Your task to perform on an android device: turn on javascript in the chrome app Image 0: 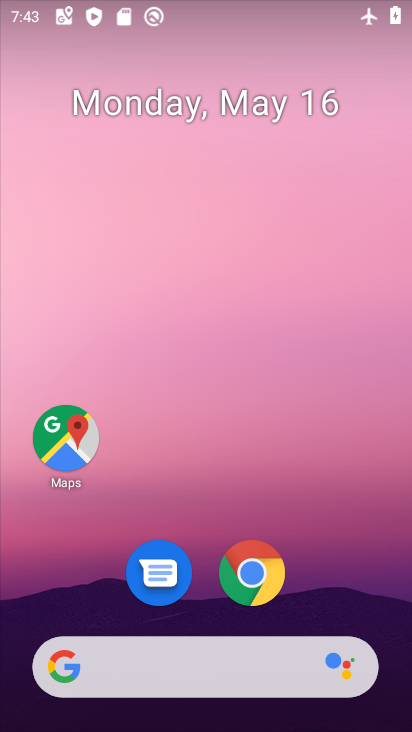
Step 0: click (272, 569)
Your task to perform on an android device: turn on javascript in the chrome app Image 1: 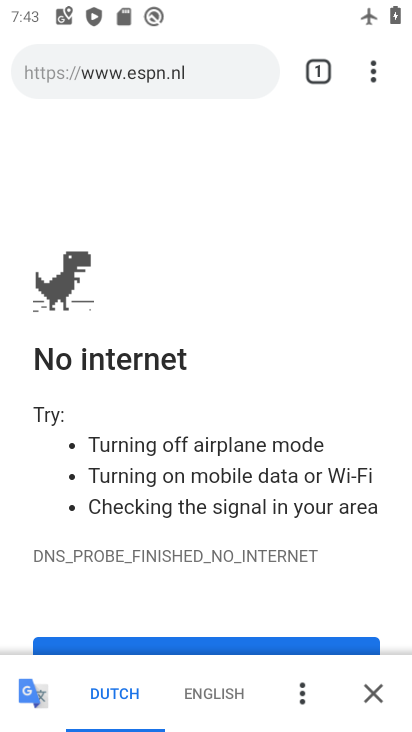
Step 1: drag from (296, 569) to (299, 1)
Your task to perform on an android device: turn on javascript in the chrome app Image 2: 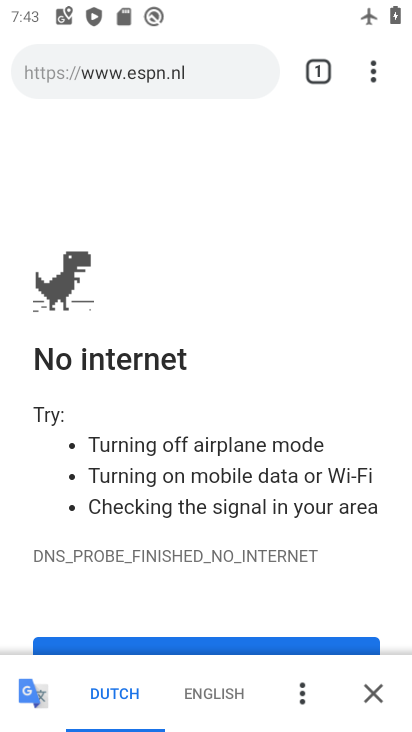
Step 2: drag from (385, 73) to (148, 574)
Your task to perform on an android device: turn on javascript in the chrome app Image 3: 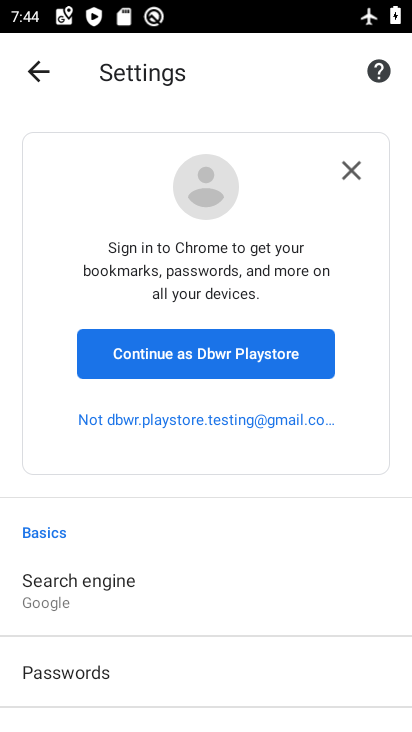
Step 3: drag from (184, 604) to (224, 107)
Your task to perform on an android device: turn on javascript in the chrome app Image 4: 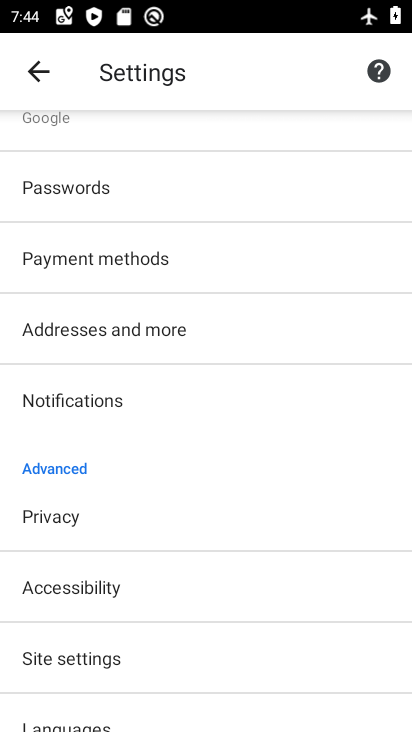
Step 4: drag from (127, 633) to (123, 222)
Your task to perform on an android device: turn on javascript in the chrome app Image 5: 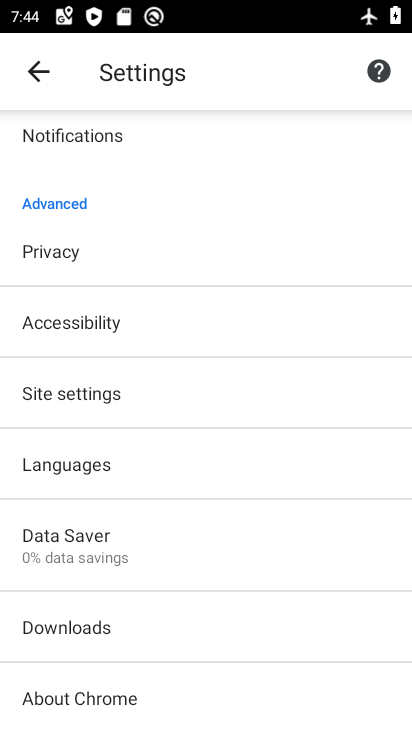
Step 5: click (56, 398)
Your task to perform on an android device: turn on javascript in the chrome app Image 6: 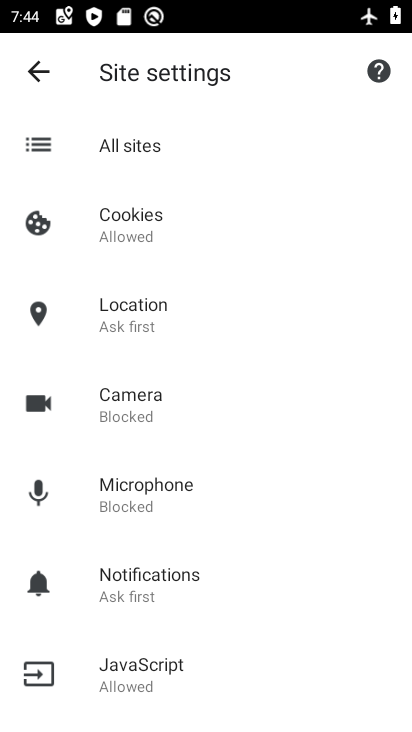
Step 6: click (167, 656)
Your task to perform on an android device: turn on javascript in the chrome app Image 7: 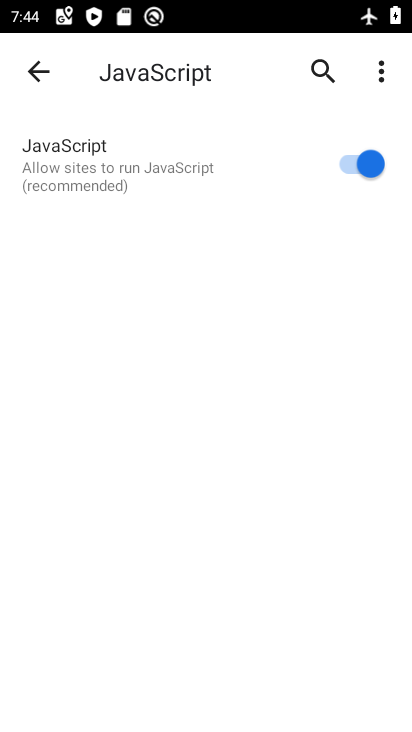
Step 7: task complete